Your task to perform on an android device: check android version Image 0: 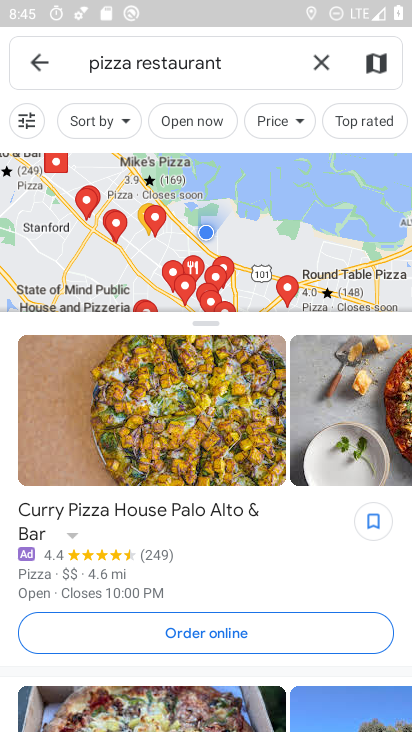
Step 0: press back button
Your task to perform on an android device: check android version Image 1: 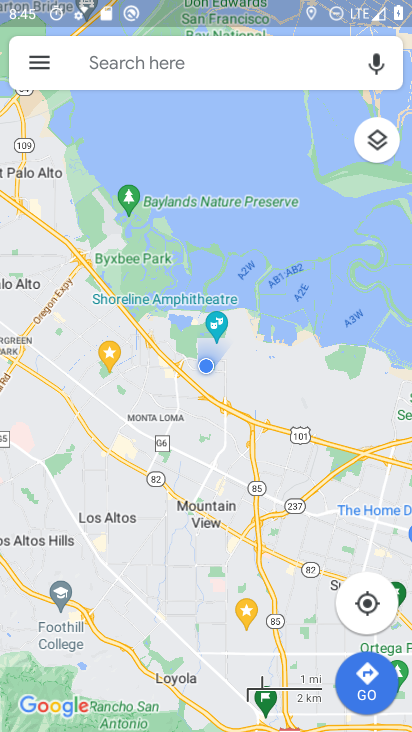
Step 1: press back button
Your task to perform on an android device: check android version Image 2: 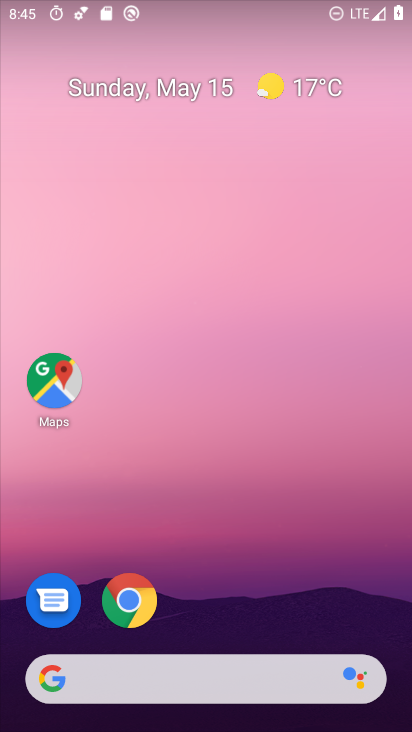
Step 2: drag from (259, 602) to (186, 163)
Your task to perform on an android device: check android version Image 3: 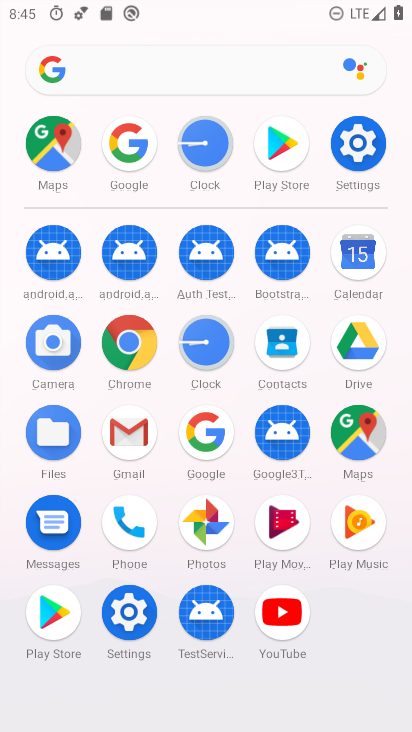
Step 3: click (358, 142)
Your task to perform on an android device: check android version Image 4: 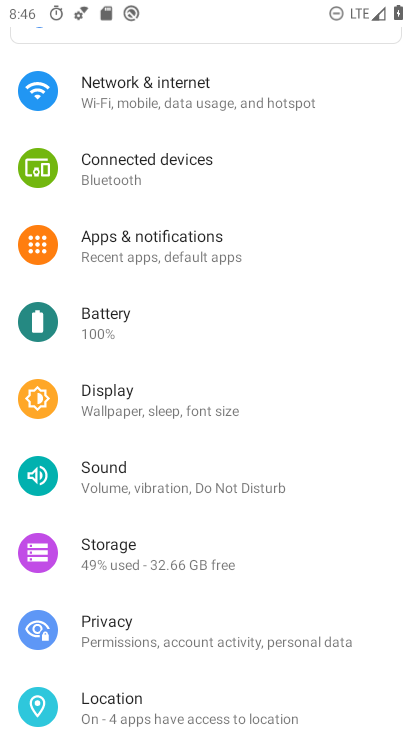
Step 4: drag from (146, 592) to (189, 431)
Your task to perform on an android device: check android version Image 5: 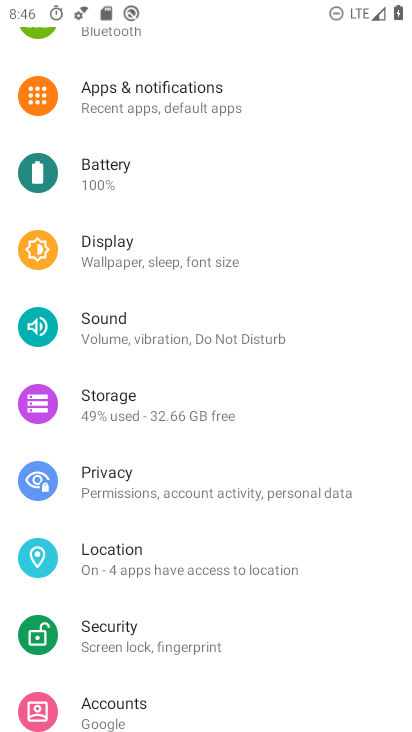
Step 5: drag from (169, 524) to (227, 424)
Your task to perform on an android device: check android version Image 6: 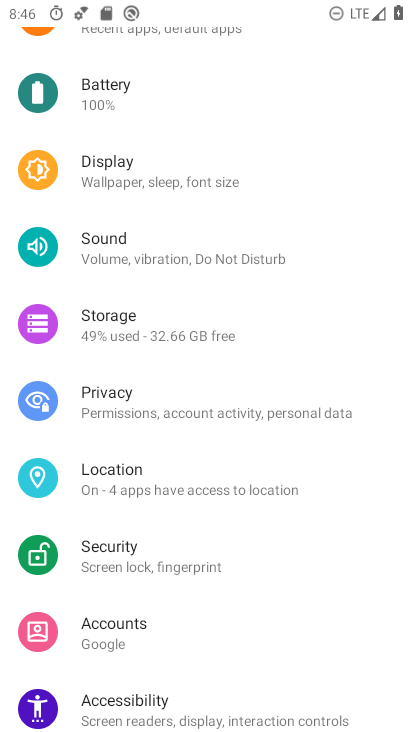
Step 6: drag from (161, 603) to (218, 506)
Your task to perform on an android device: check android version Image 7: 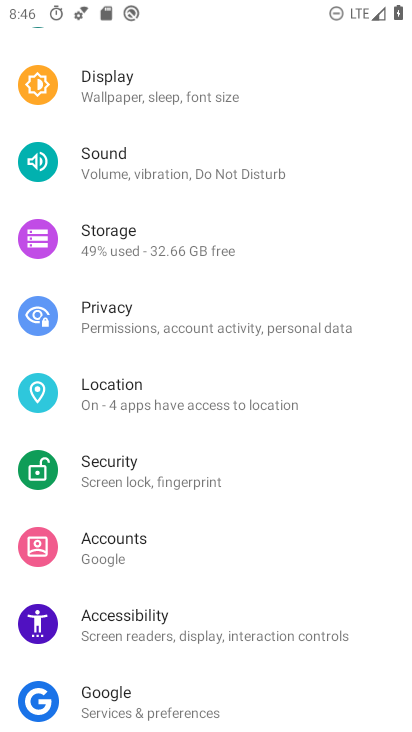
Step 7: drag from (133, 670) to (219, 535)
Your task to perform on an android device: check android version Image 8: 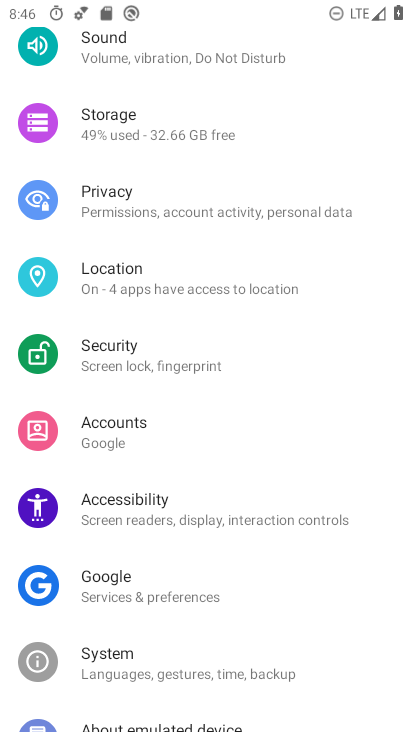
Step 8: drag from (138, 646) to (230, 510)
Your task to perform on an android device: check android version Image 9: 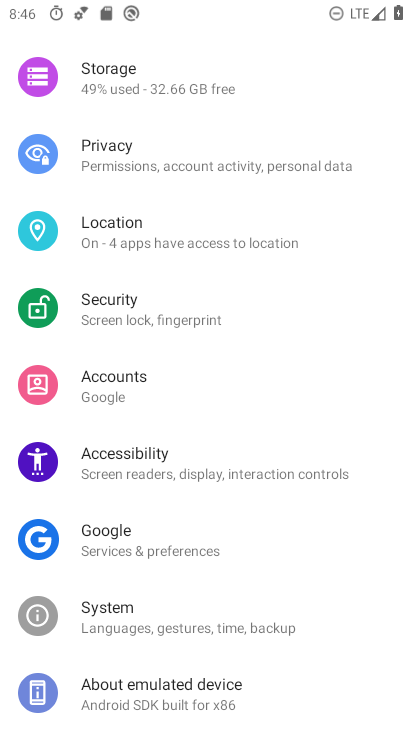
Step 9: click (139, 692)
Your task to perform on an android device: check android version Image 10: 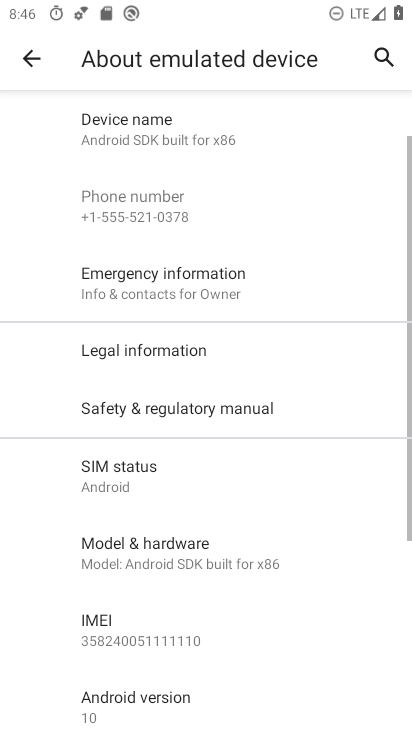
Step 10: drag from (134, 376) to (200, 287)
Your task to perform on an android device: check android version Image 11: 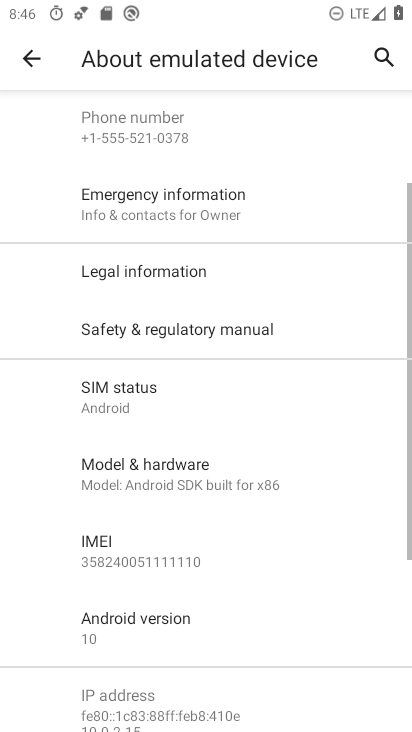
Step 11: drag from (161, 506) to (227, 394)
Your task to perform on an android device: check android version Image 12: 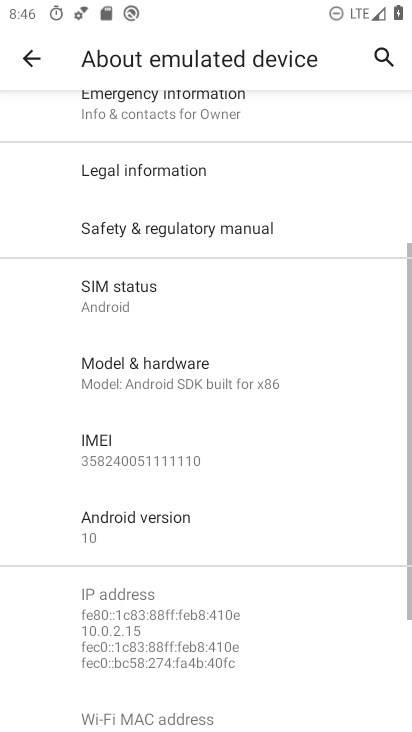
Step 12: click (138, 520)
Your task to perform on an android device: check android version Image 13: 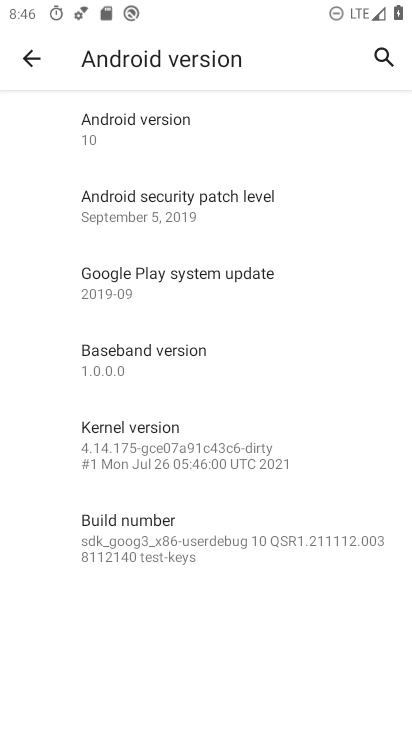
Step 13: task complete